Your task to perform on an android device: open a bookmark in the chrome app Image 0: 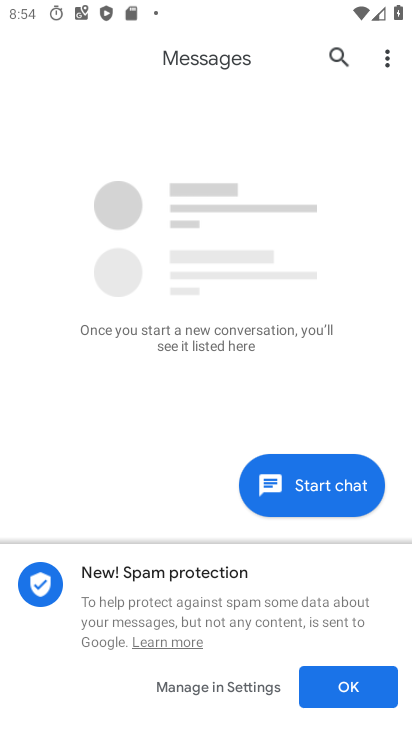
Step 0: press back button
Your task to perform on an android device: open a bookmark in the chrome app Image 1: 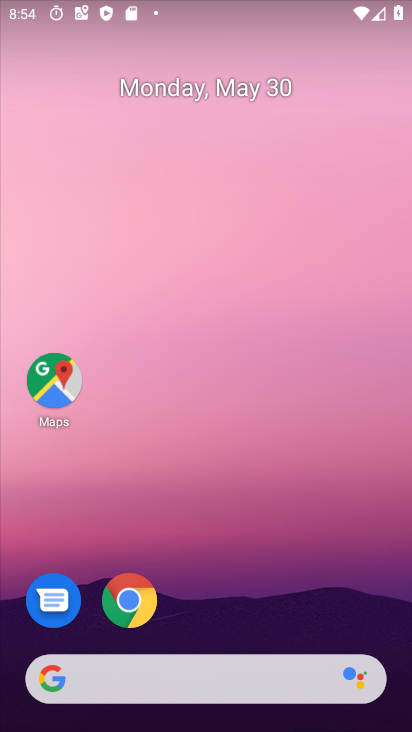
Step 1: drag from (223, 597) to (227, 2)
Your task to perform on an android device: open a bookmark in the chrome app Image 2: 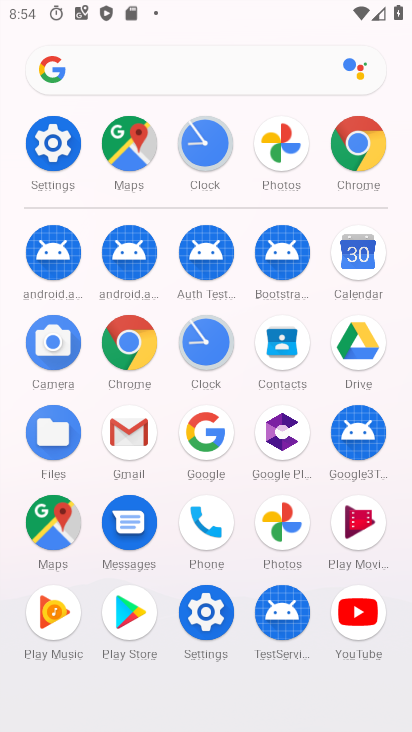
Step 2: drag from (7, 570) to (9, 315)
Your task to perform on an android device: open a bookmark in the chrome app Image 3: 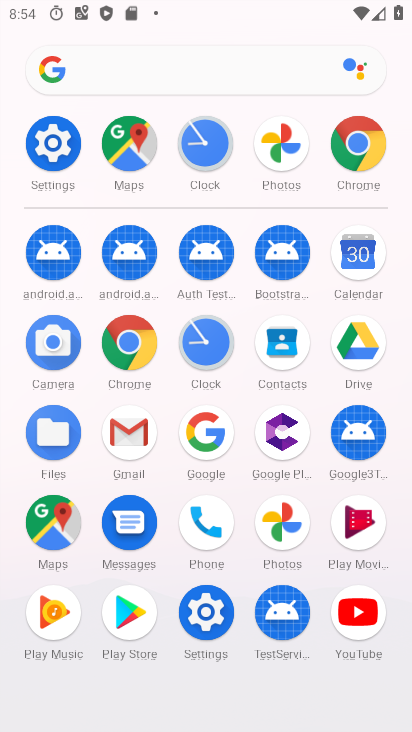
Step 3: click (121, 343)
Your task to perform on an android device: open a bookmark in the chrome app Image 4: 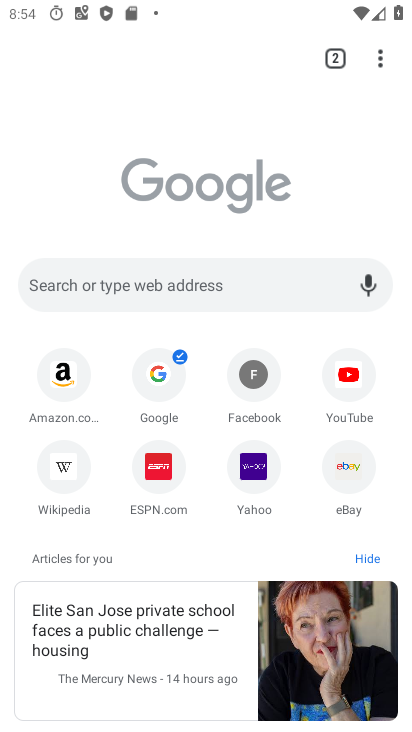
Step 4: drag from (375, 55) to (248, 210)
Your task to perform on an android device: open a bookmark in the chrome app Image 5: 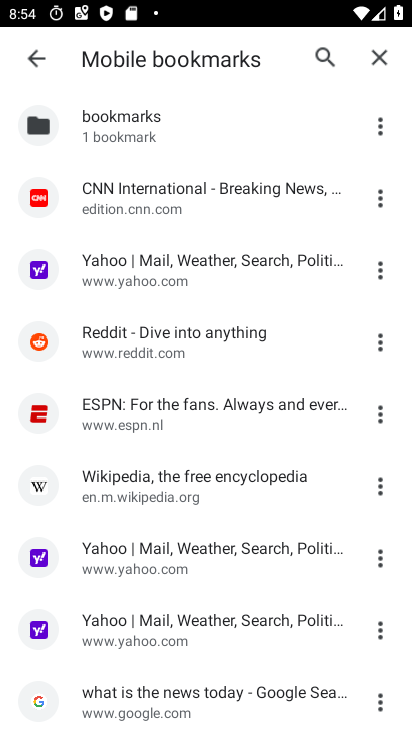
Step 5: click (179, 257)
Your task to perform on an android device: open a bookmark in the chrome app Image 6: 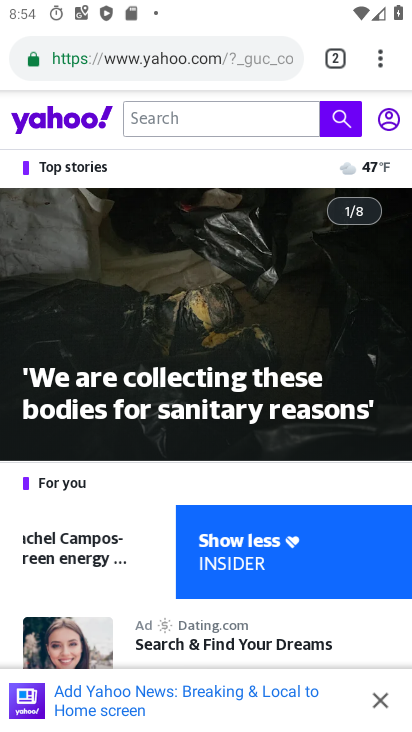
Step 6: task complete